Your task to perform on an android device: Open location settings Image 0: 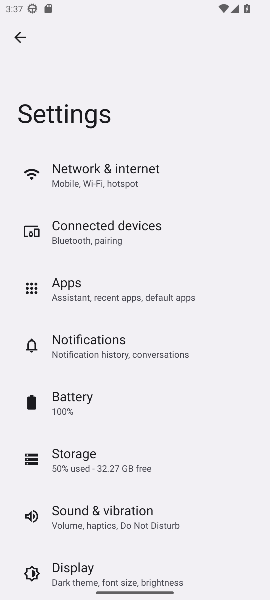
Step 0: press home button
Your task to perform on an android device: Open location settings Image 1: 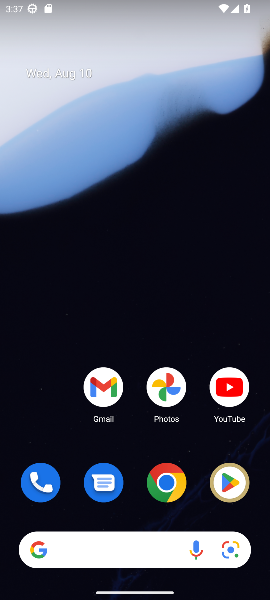
Step 1: drag from (137, 500) to (111, 3)
Your task to perform on an android device: Open location settings Image 2: 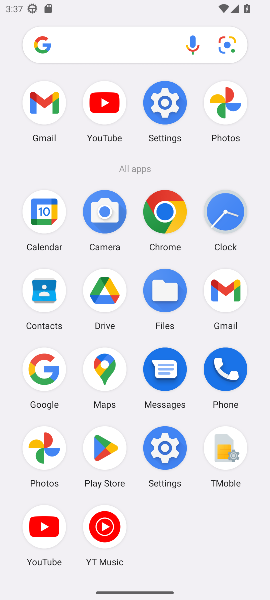
Step 2: click (162, 441)
Your task to perform on an android device: Open location settings Image 3: 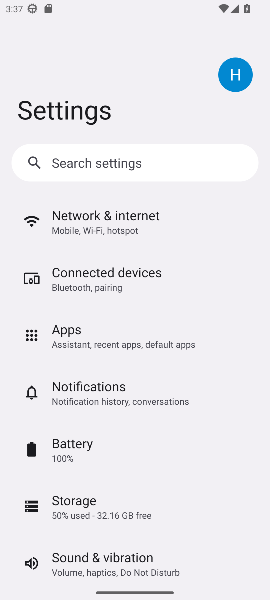
Step 3: drag from (195, 524) to (226, 144)
Your task to perform on an android device: Open location settings Image 4: 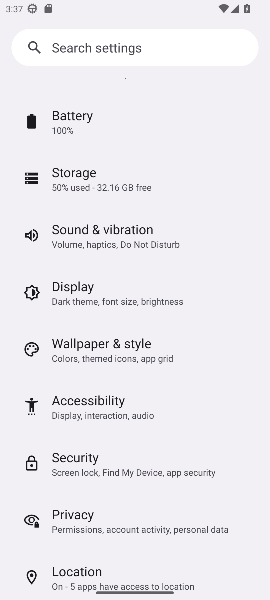
Step 4: click (85, 571)
Your task to perform on an android device: Open location settings Image 5: 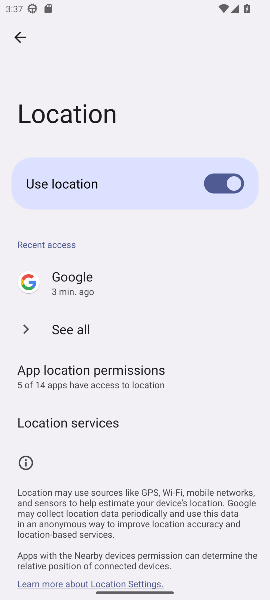
Step 5: task complete